Your task to perform on an android device: Do I have any events this weekend? Image 0: 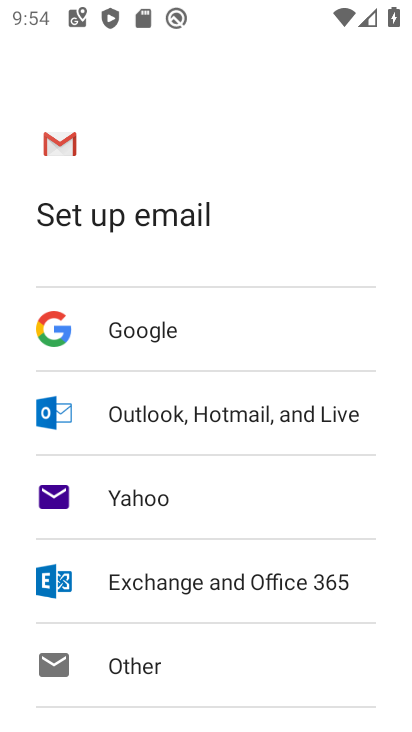
Step 0: press home button
Your task to perform on an android device: Do I have any events this weekend? Image 1: 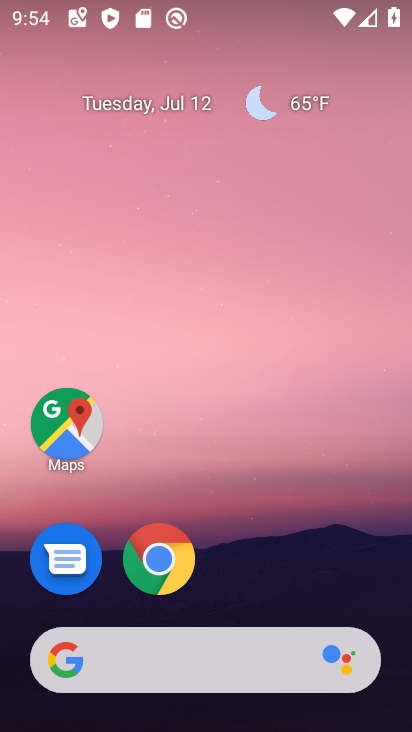
Step 1: drag from (346, 585) to (321, 105)
Your task to perform on an android device: Do I have any events this weekend? Image 2: 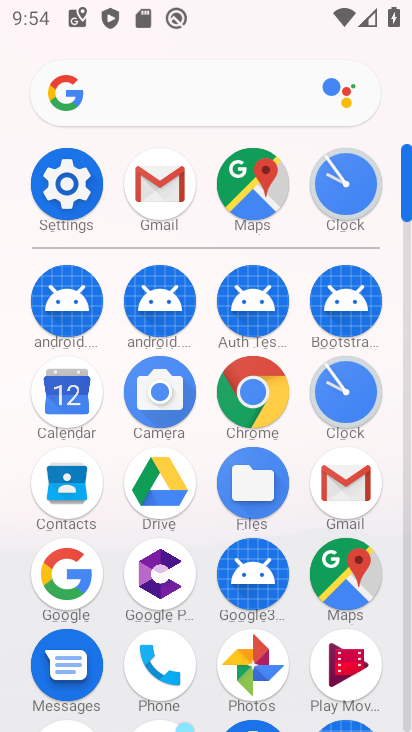
Step 2: click (65, 395)
Your task to perform on an android device: Do I have any events this weekend? Image 3: 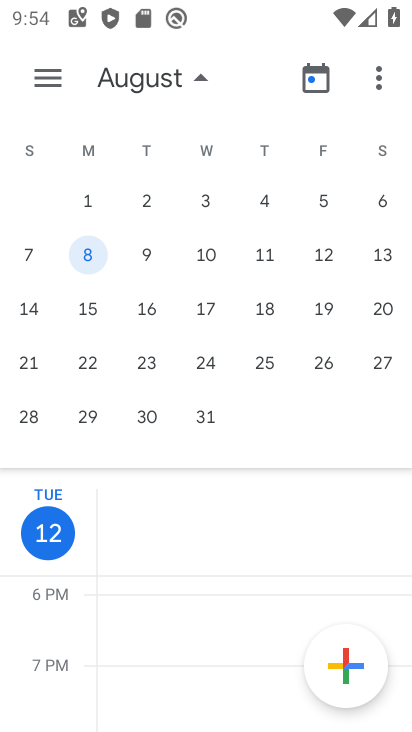
Step 3: drag from (232, 570) to (224, 184)
Your task to perform on an android device: Do I have any events this weekend? Image 4: 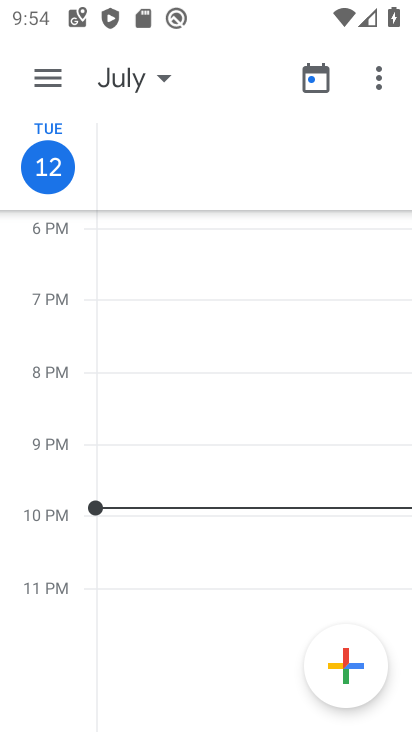
Step 4: click (60, 72)
Your task to perform on an android device: Do I have any events this weekend? Image 5: 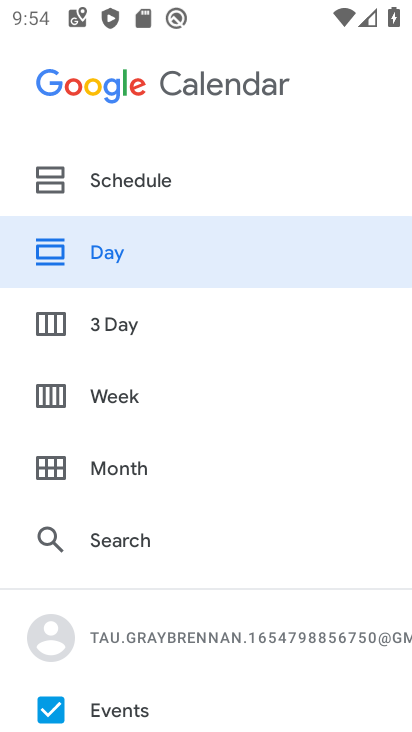
Step 5: click (130, 185)
Your task to perform on an android device: Do I have any events this weekend? Image 6: 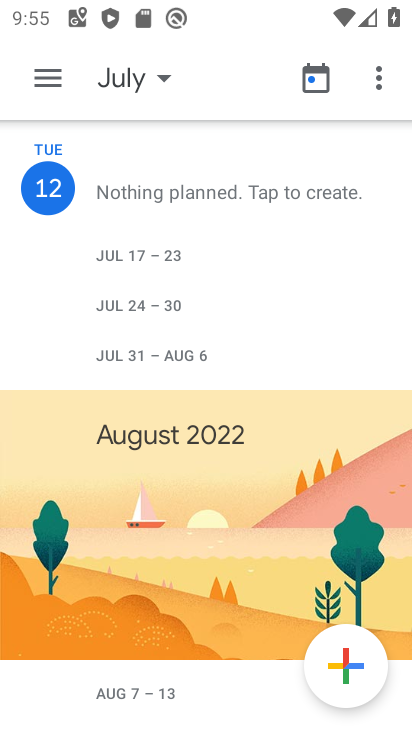
Step 6: task complete